Your task to perform on an android device: install app "Adobe Express: Graphic Design" Image 0: 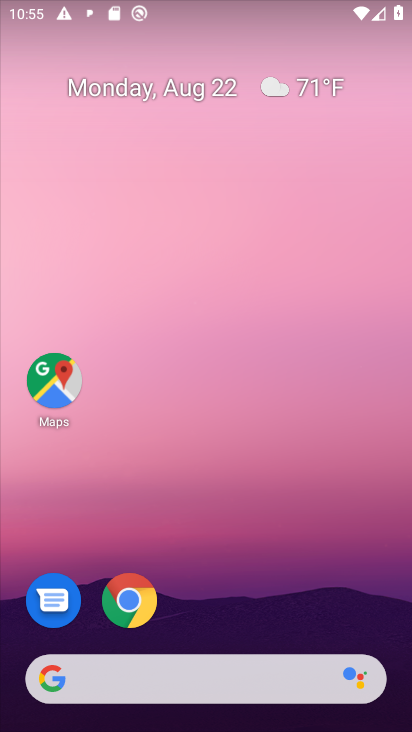
Step 0: drag from (228, 568) to (264, 71)
Your task to perform on an android device: install app "Adobe Express: Graphic Design" Image 1: 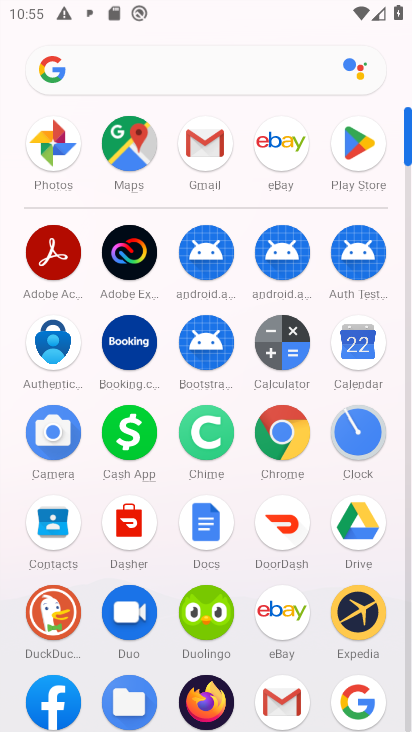
Step 1: click (343, 139)
Your task to perform on an android device: install app "Adobe Express: Graphic Design" Image 2: 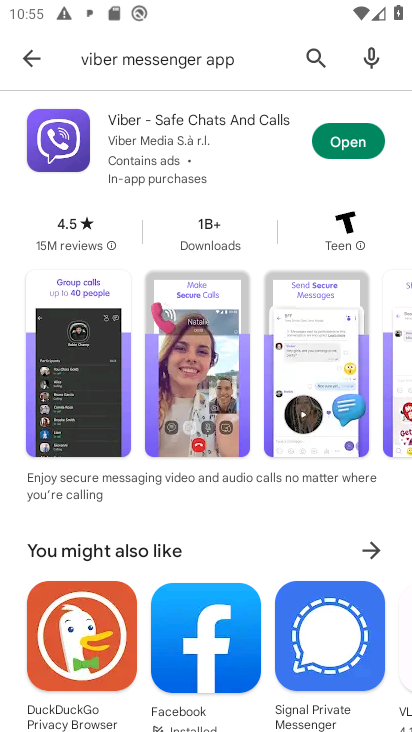
Step 2: click (305, 51)
Your task to perform on an android device: install app "Adobe Express: Graphic Design" Image 3: 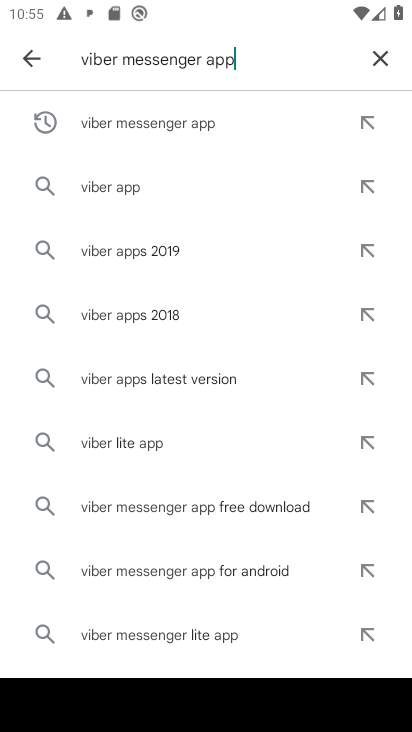
Step 3: click (369, 55)
Your task to perform on an android device: install app "Adobe Express: Graphic Design" Image 4: 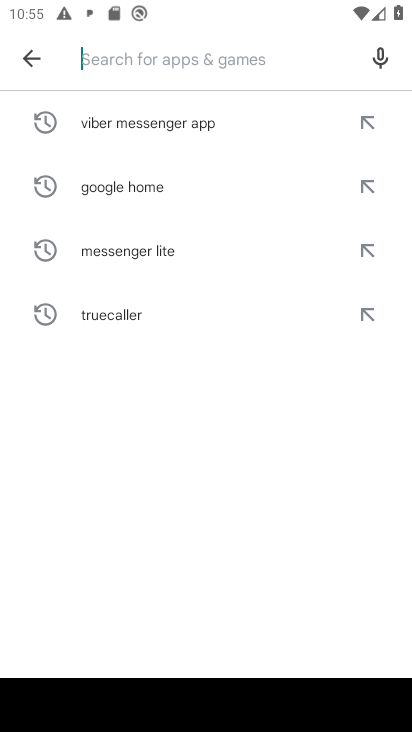
Step 4: type "Adobe Express: Graphic Design"
Your task to perform on an android device: install app "Adobe Express: Graphic Design" Image 5: 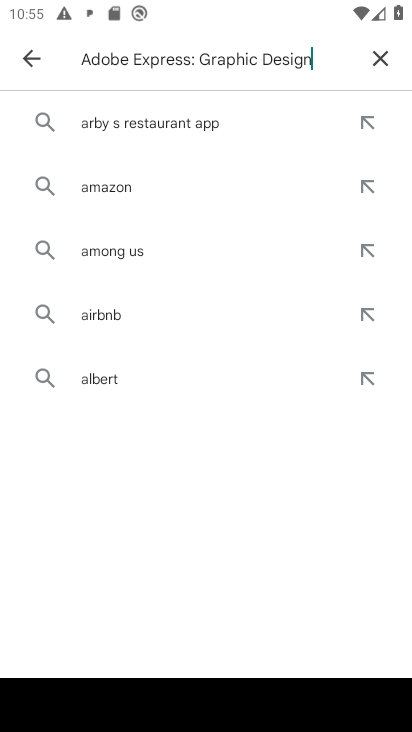
Step 5: type ""
Your task to perform on an android device: install app "Adobe Express: Graphic Design" Image 6: 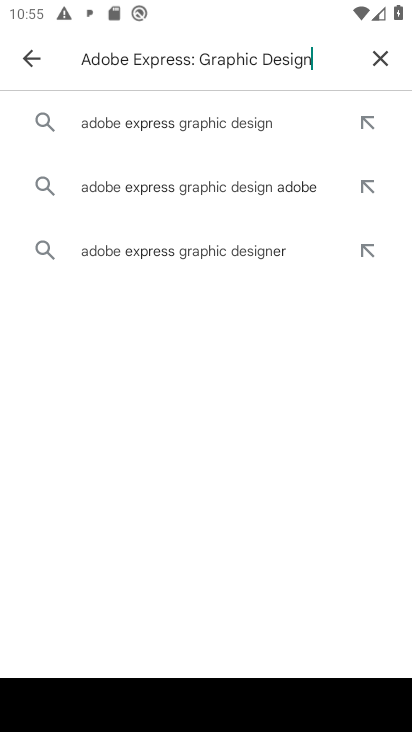
Step 6: click (201, 108)
Your task to perform on an android device: install app "Adobe Express: Graphic Design" Image 7: 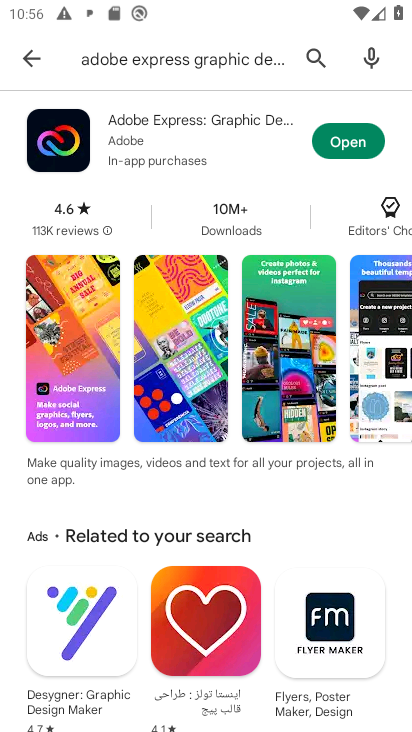
Step 7: task complete